Your task to perform on an android device: turn on the 24-hour format for clock Image 0: 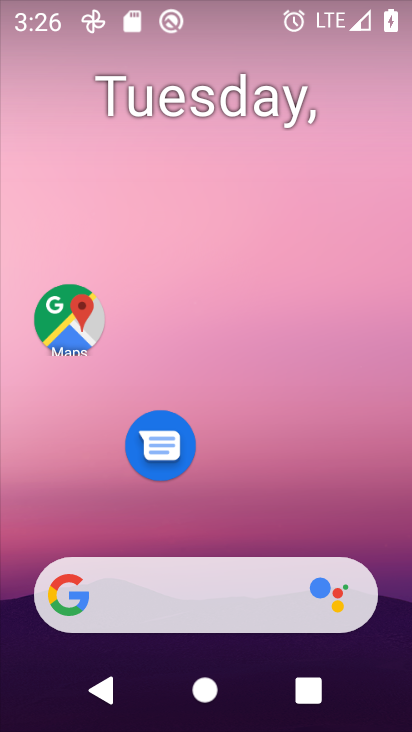
Step 0: drag from (263, 511) to (198, 0)
Your task to perform on an android device: turn on the 24-hour format for clock Image 1: 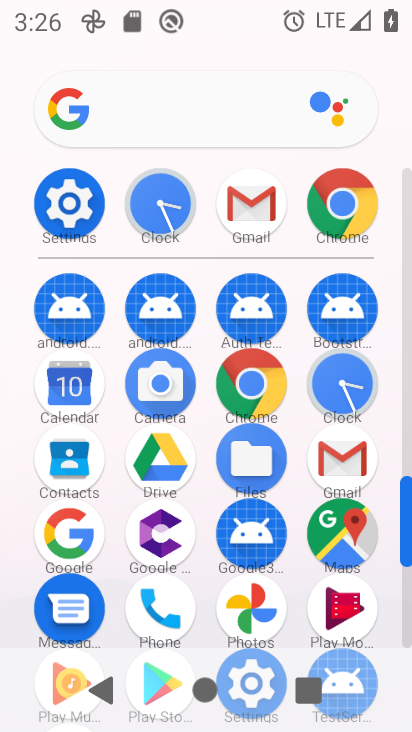
Step 1: click (155, 206)
Your task to perform on an android device: turn on the 24-hour format for clock Image 2: 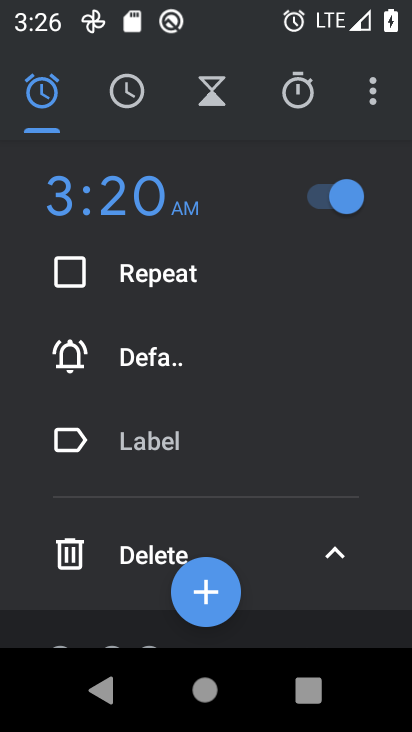
Step 2: click (370, 100)
Your task to perform on an android device: turn on the 24-hour format for clock Image 3: 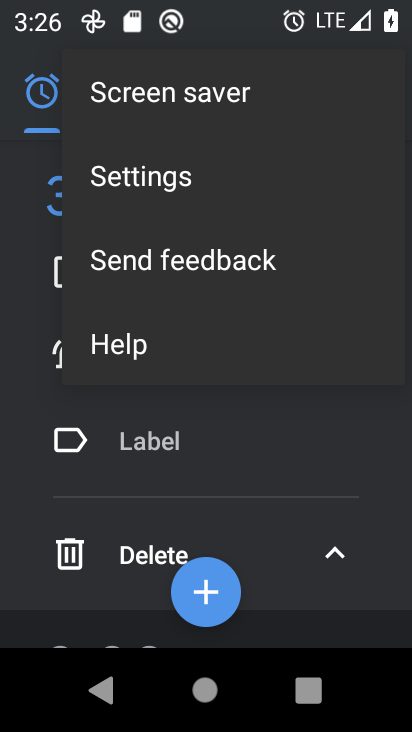
Step 3: click (169, 174)
Your task to perform on an android device: turn on the 24-hour format for clock Image 4: 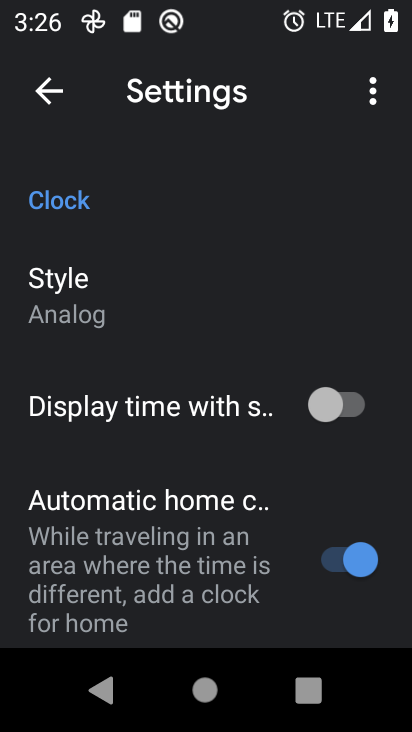
Step 4: drag from (204, 471) to (170, 271)
Your task to perform on an android device: turn on the 24-hour format for clock Image 5: 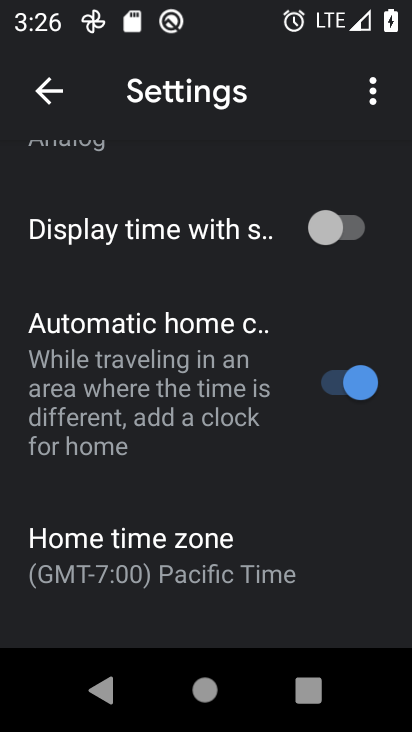
Step 5: drag from (198, 470) to (180, 223)
Your task to perform on an android device: turn on the 24-hour format for clock Image 6: 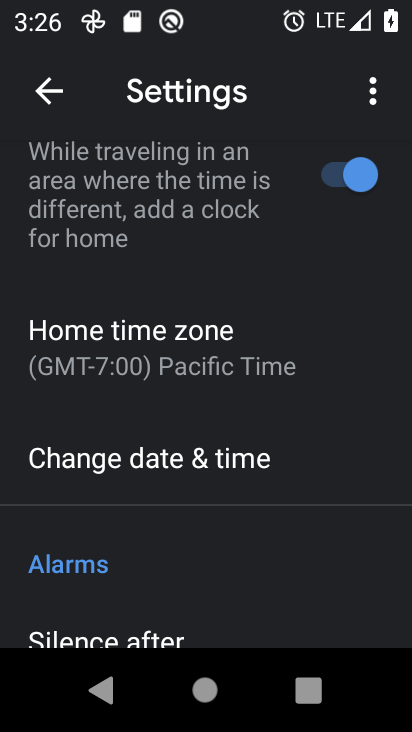
Step 6: click (135, 455)
Your task to perform on an android device: turn on the 24-hour format for clock Image 7: 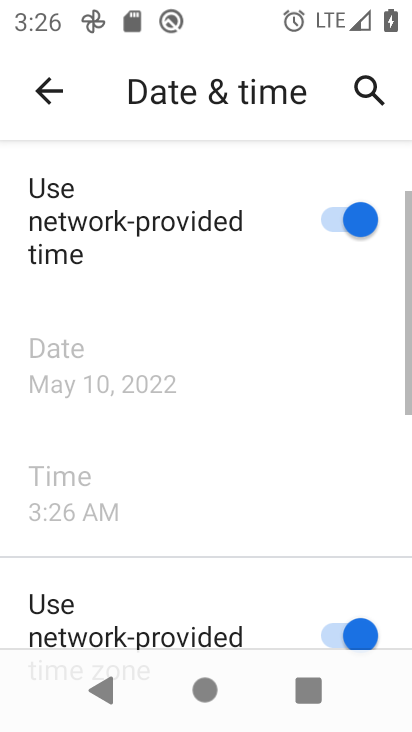
Step 7: drag from (211, 517) to (168, 221)
Your task to perform on an android device: turn on the 24-hour format for clock Image 8: 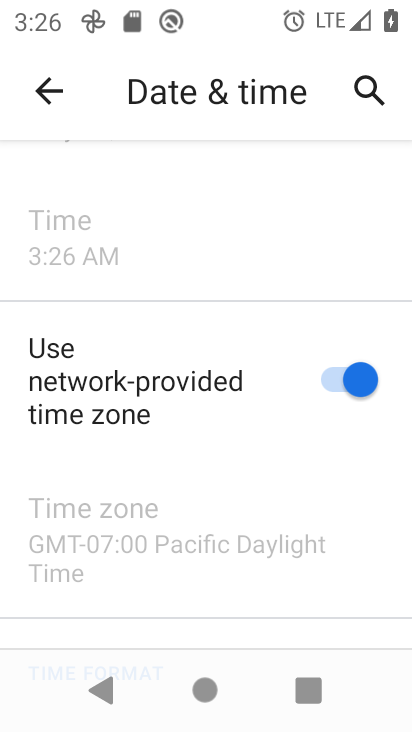
Step 8: drag from (195, 507) to (160, 198)
Your task to perform on an android device: turn on the 24-hour format for clock Image 9: 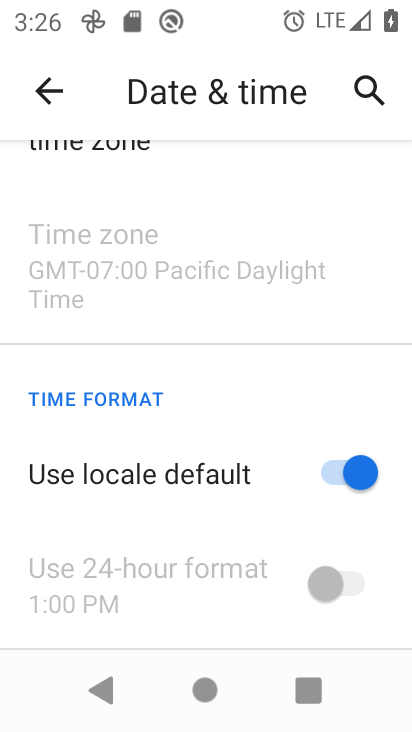
Step 9: click (369, 462)
Your task to perform on an android device: turn on the 24-hour format for clock Image 10: 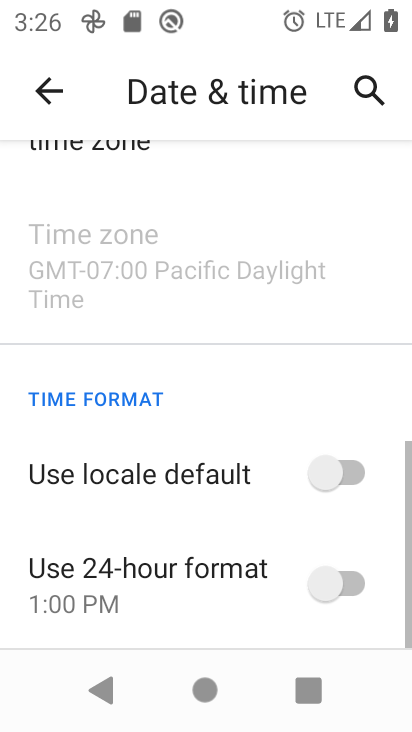
Step 10: click (334, 586)
Your task to perform on an android device: turn on the 24-hour format for clock Image 11: 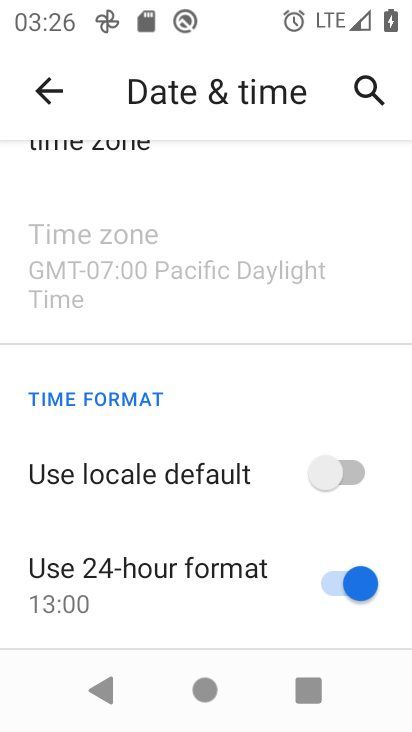
Step 11: task complete